Your task to perform on an android device: Open Chrome and go to settings Image 0: 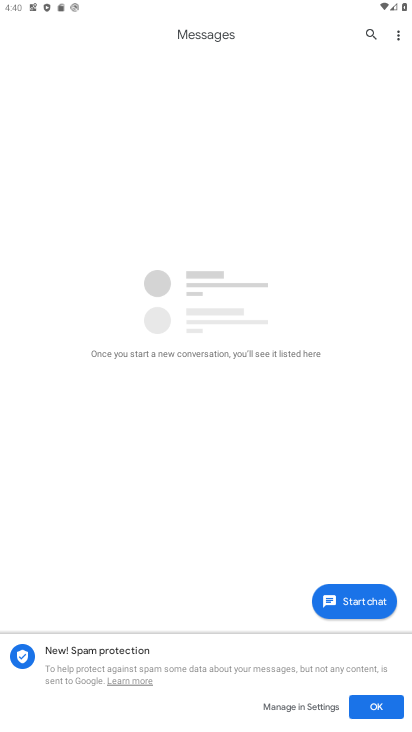
Step 0: press home button
Your task to perform on an android device: Open Chrome and go to settings Image 1: 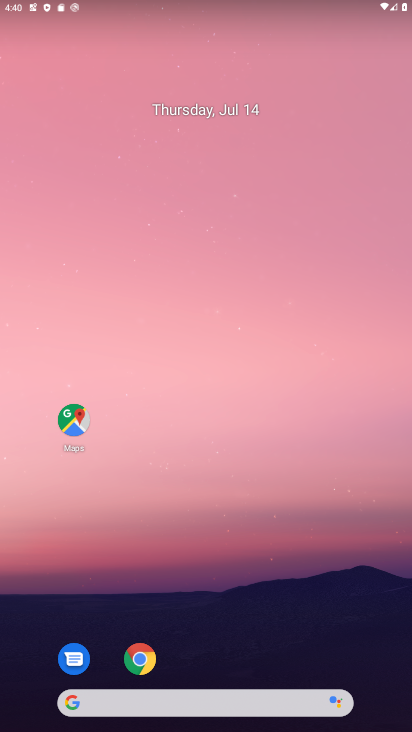
Step 1: click (135, 667)
Your task to perform on an android device: Open Chrome and go to settings Image 2: 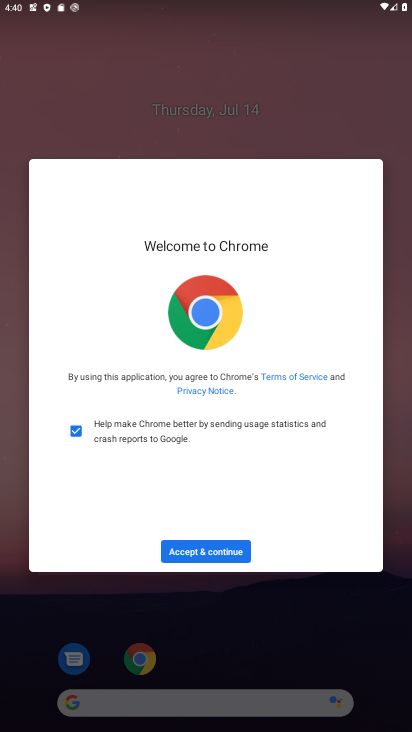
Step 2: click (194, 549)
Your task to perform on an android device: Open Chrome and go to settings Image 3: 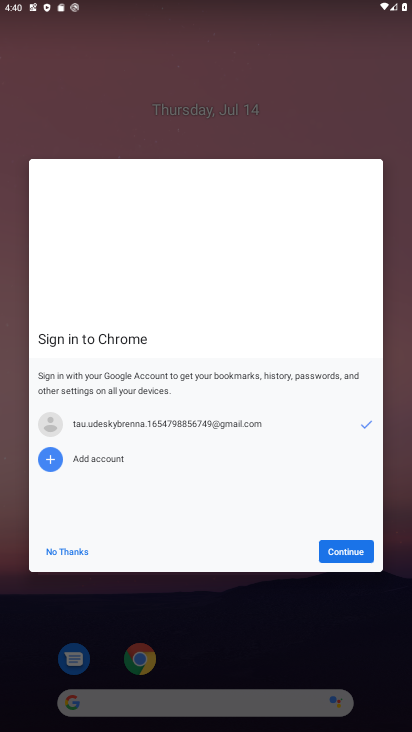
Step 3: click (347, 562)
Your task to perform on an android device: Open Chrome and go to settings Image 4: 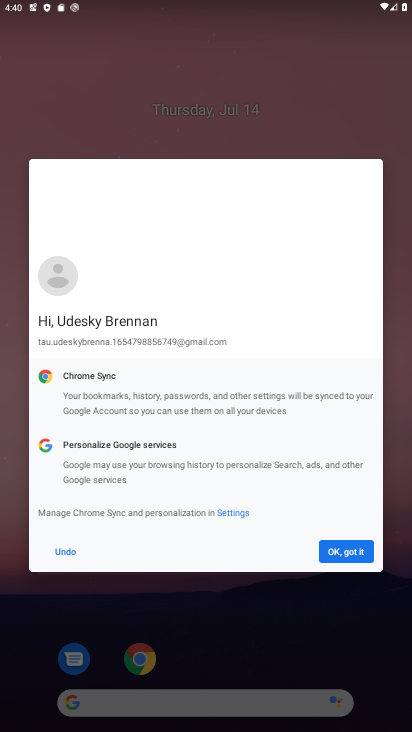
Step 4: click (348, 556)
Your task to perform on an android device: Open Chrome and go to settings Image 5: 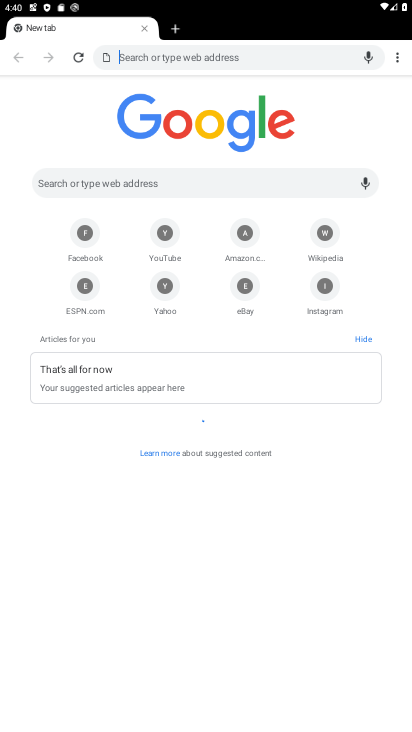
Step 5: task complete